Your task to perform on an android device: open chrome privacy settings Image 0: 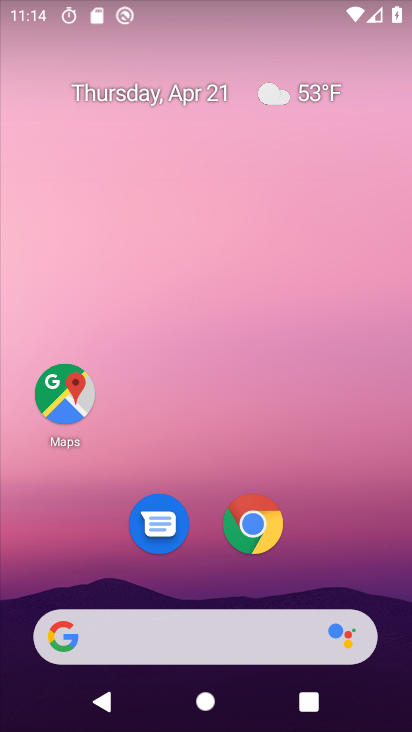
Step 0: click (240, 526)
Your task to perform on an android device: open chrome privacy settings Image 1: 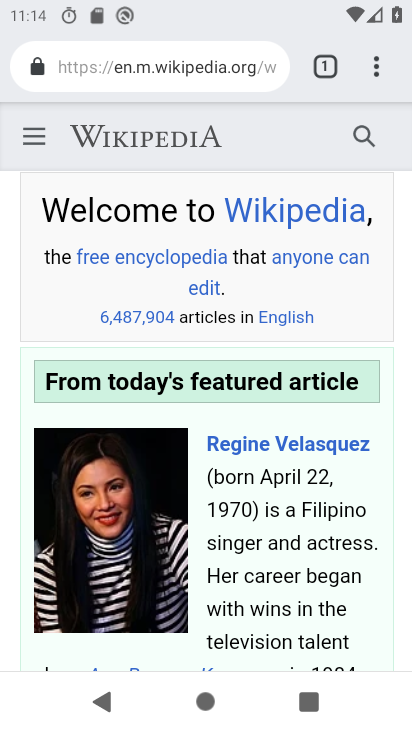
Step 1: drag from (374, 59) to (263, 524)
Your task to perform on an android device: open chrome privacy settings Image 2: 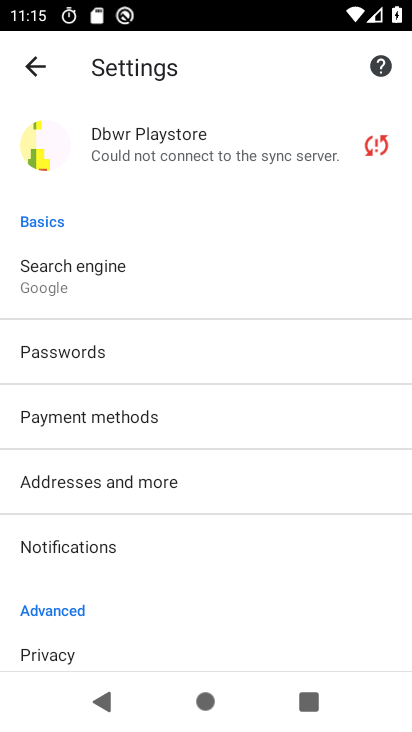
Step 2: click (143, 653)
Your task to perform on an android device: open chrome privacy settings Image 3: 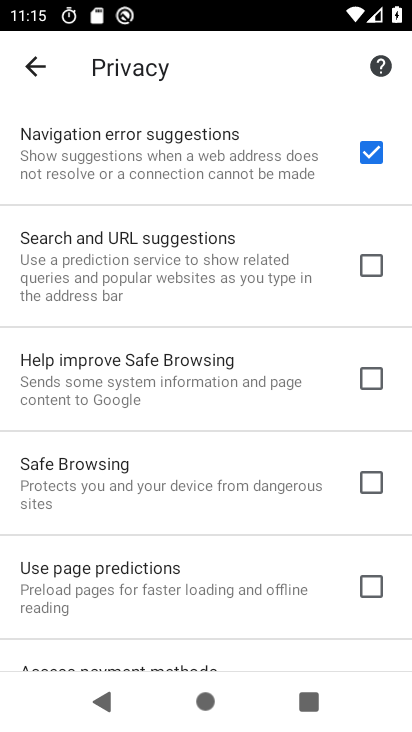
Step 3: task complete